Your task to perform on an android device: Go to eBay Image 0: 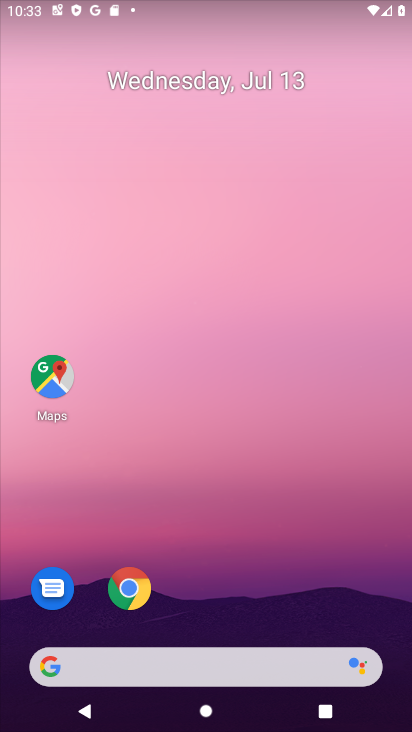
Step 0: drag from (179, 579) to (197, 91)
Your task to perform on an android device: Go to eBay Image 1: 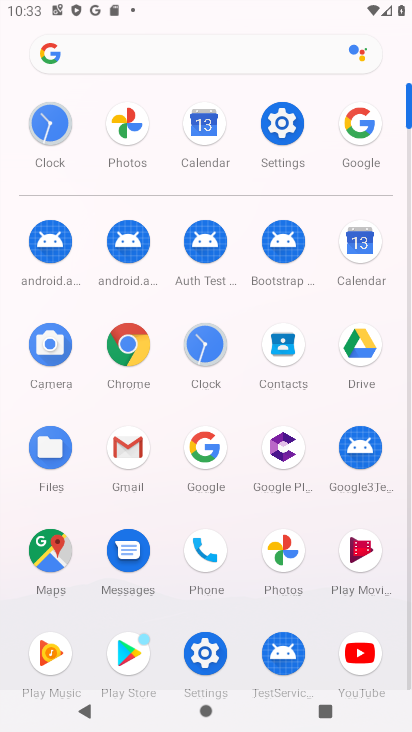
Step 1: click (364, 121)
Your task to perform on an android device: Go to eBay Image 2: 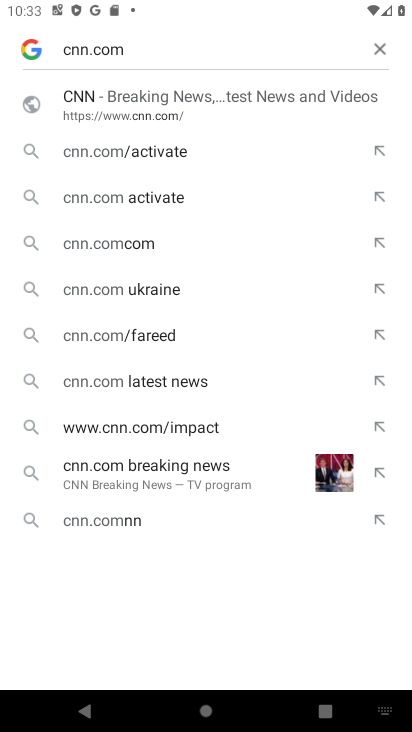
Step 2: click (385, 52)
Your task to perform on an android device: Go to eBay Image 3: 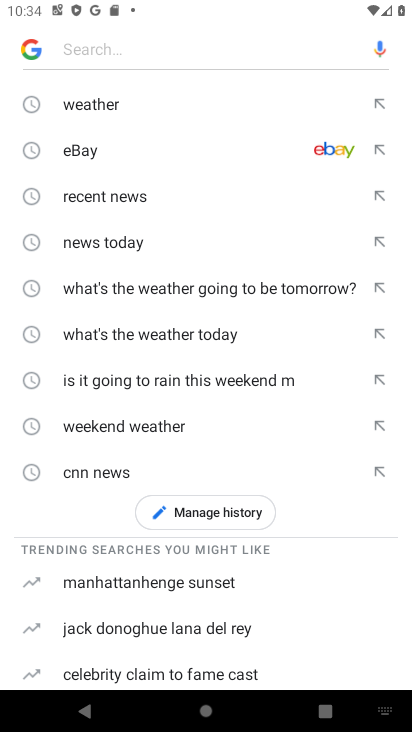
Step 3: click (68, 150)
Your task to perform on an android device: Go to eBay Image 4: 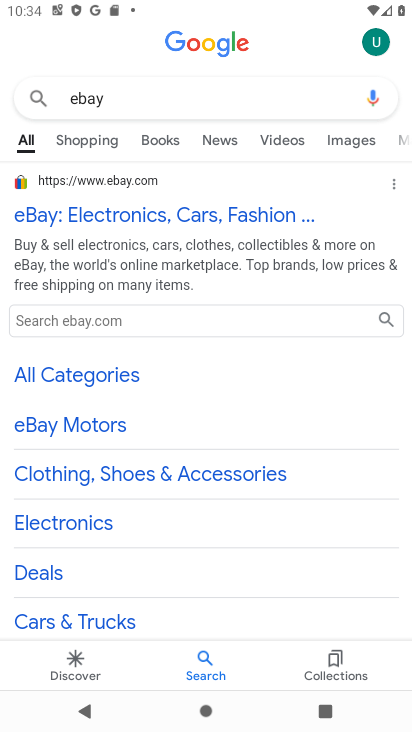
Step 4: click (160, 224)
Your task to perform on an android device: Go to eBay Image 5: 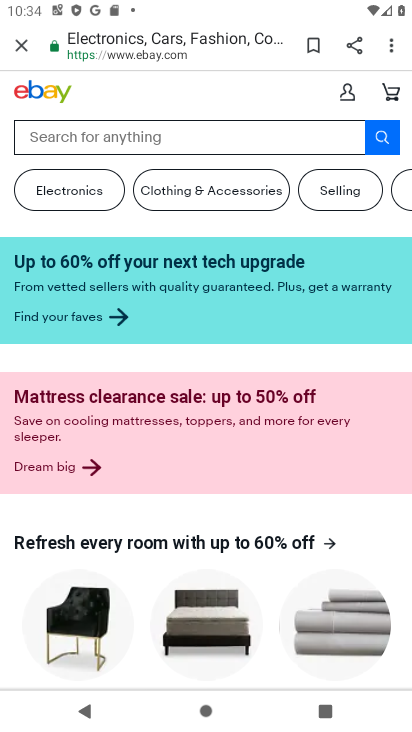
Step 5: task complete